Your task to perform on an android device: change the clock style Image 0: 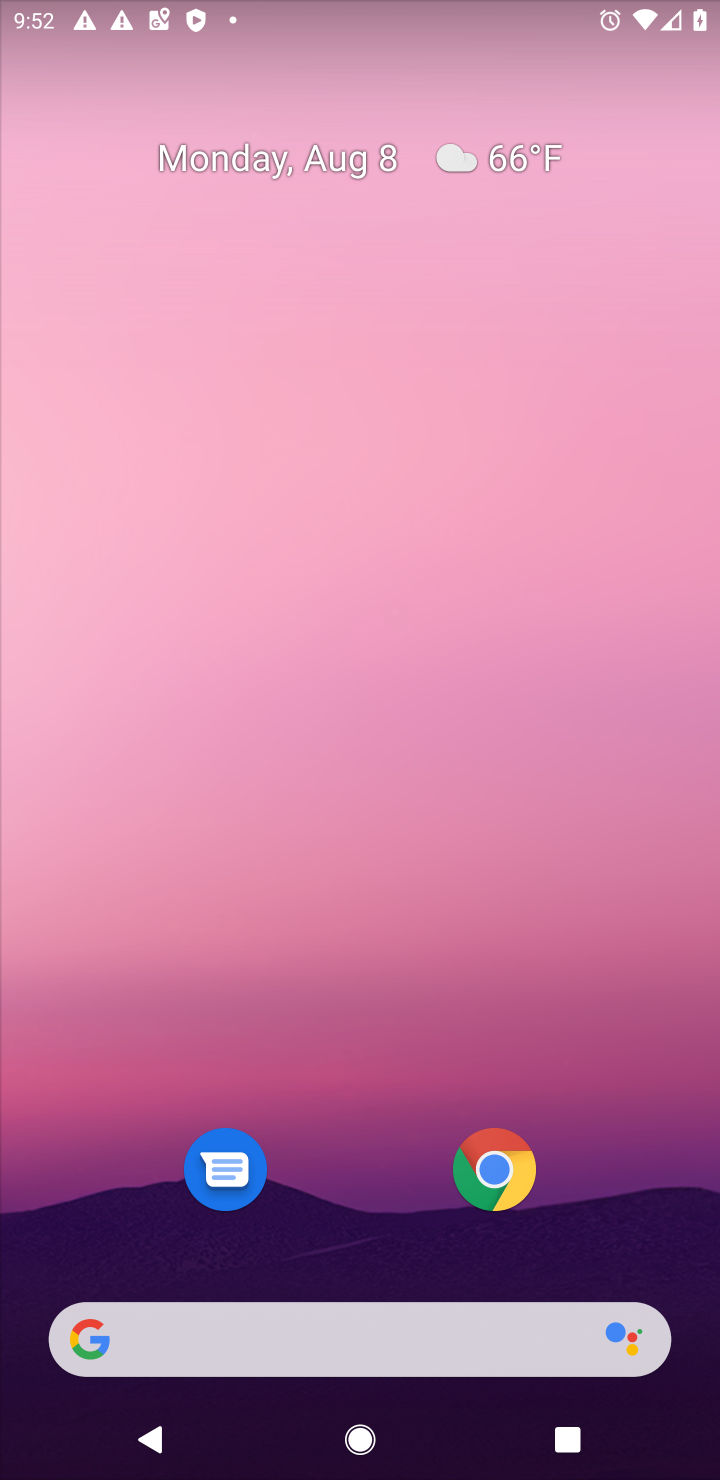
Step 0: drag from (308, 1190) to (395, 53)
Your task to perform on an android device: change the clock style Image 1: 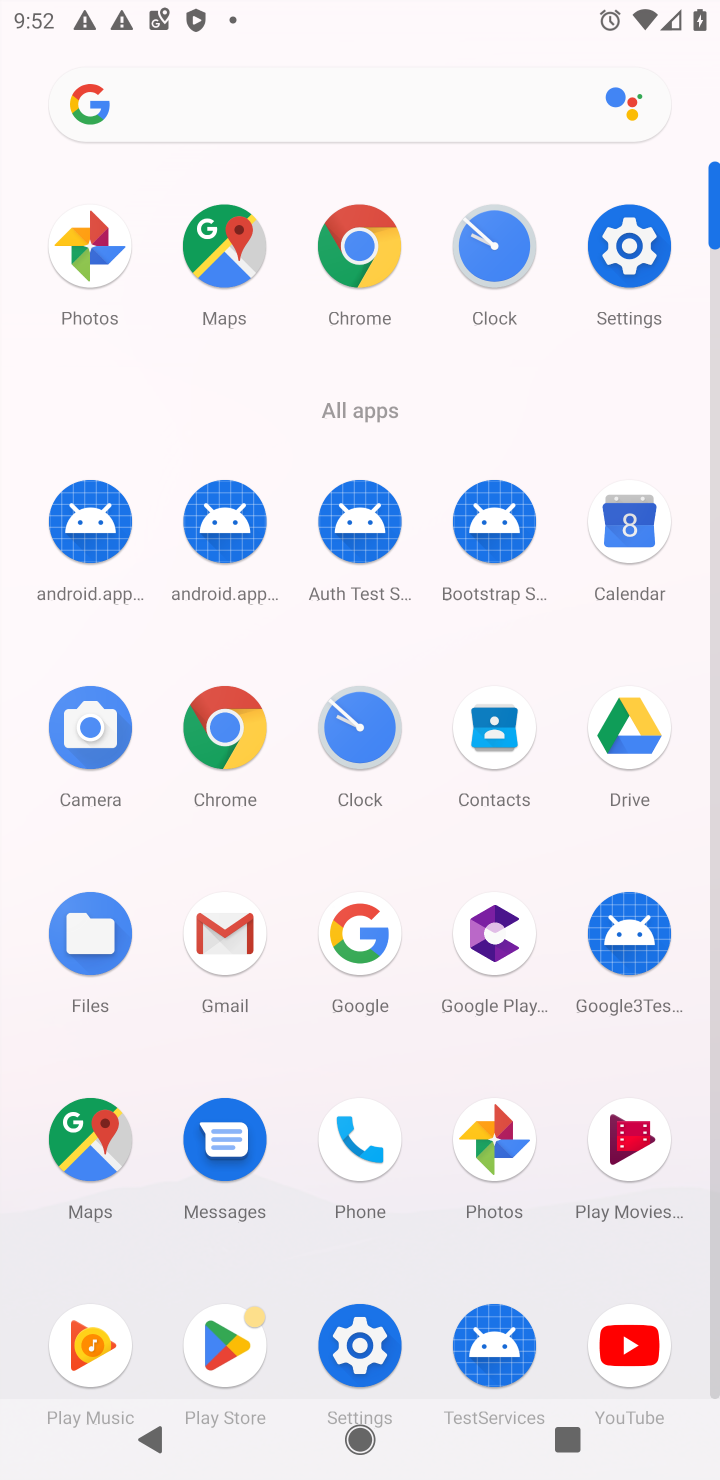
Step 1: click (489, 255)
Your task to perform on an android device: change the clock style Image 2: 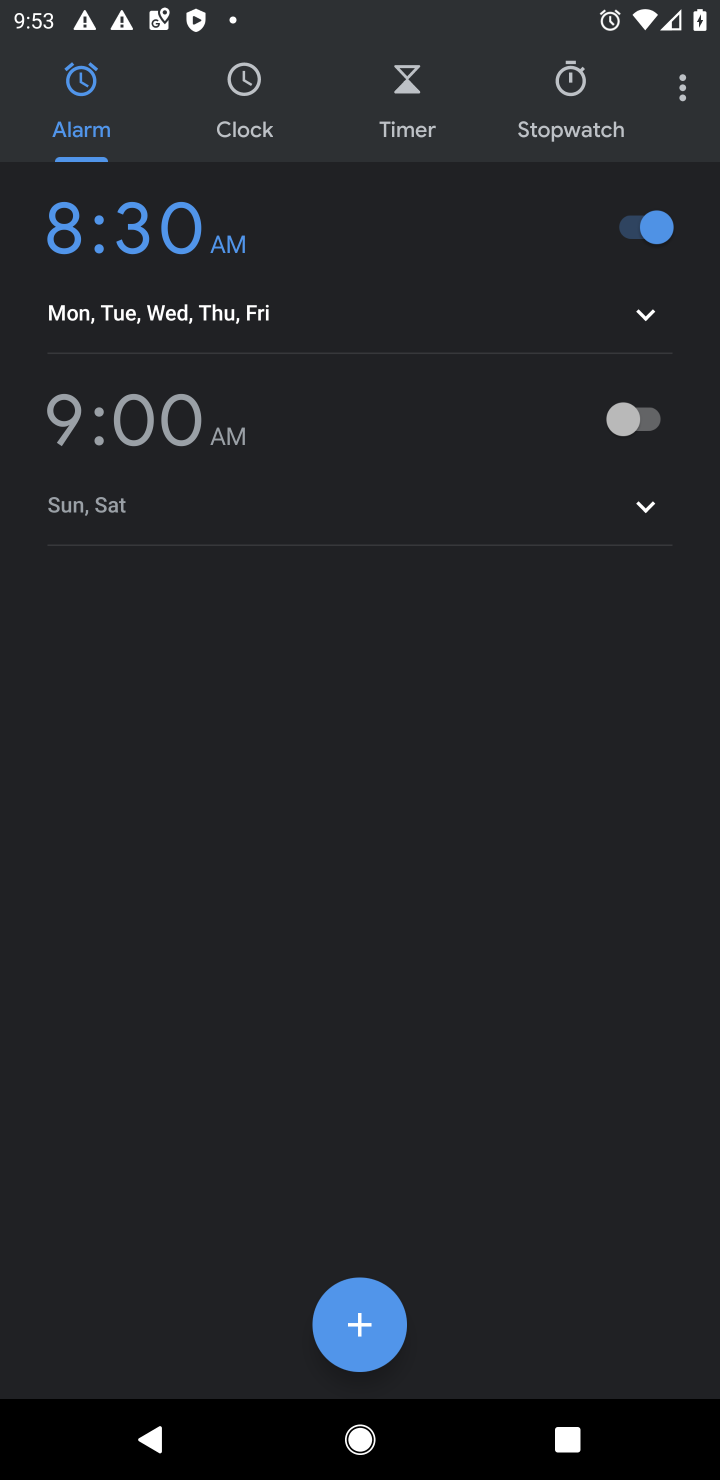
Step 2: click (677, 90)
Your task to perform on an android device: change the clock style Image 3: 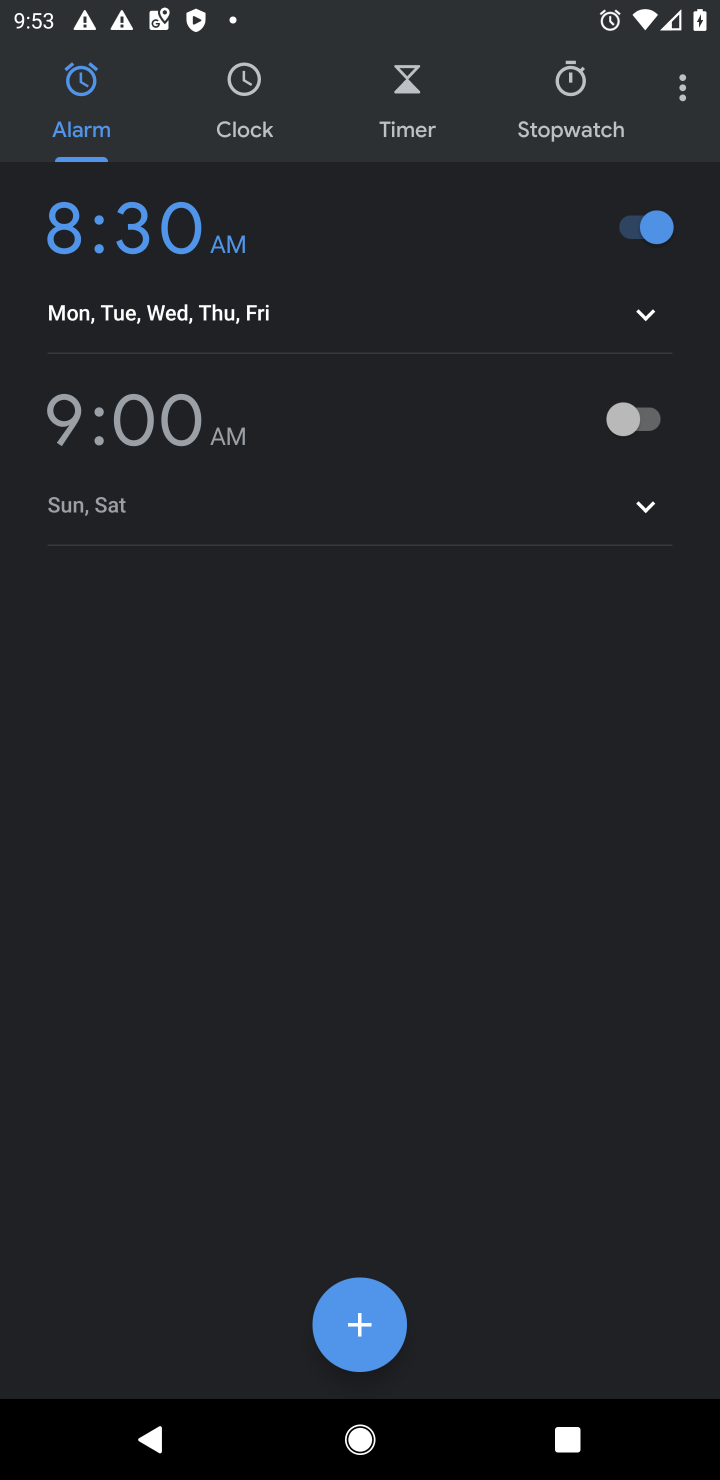
Step 3: click (692, 82)
Your task to perform on an android device: change the clock style Image 4: 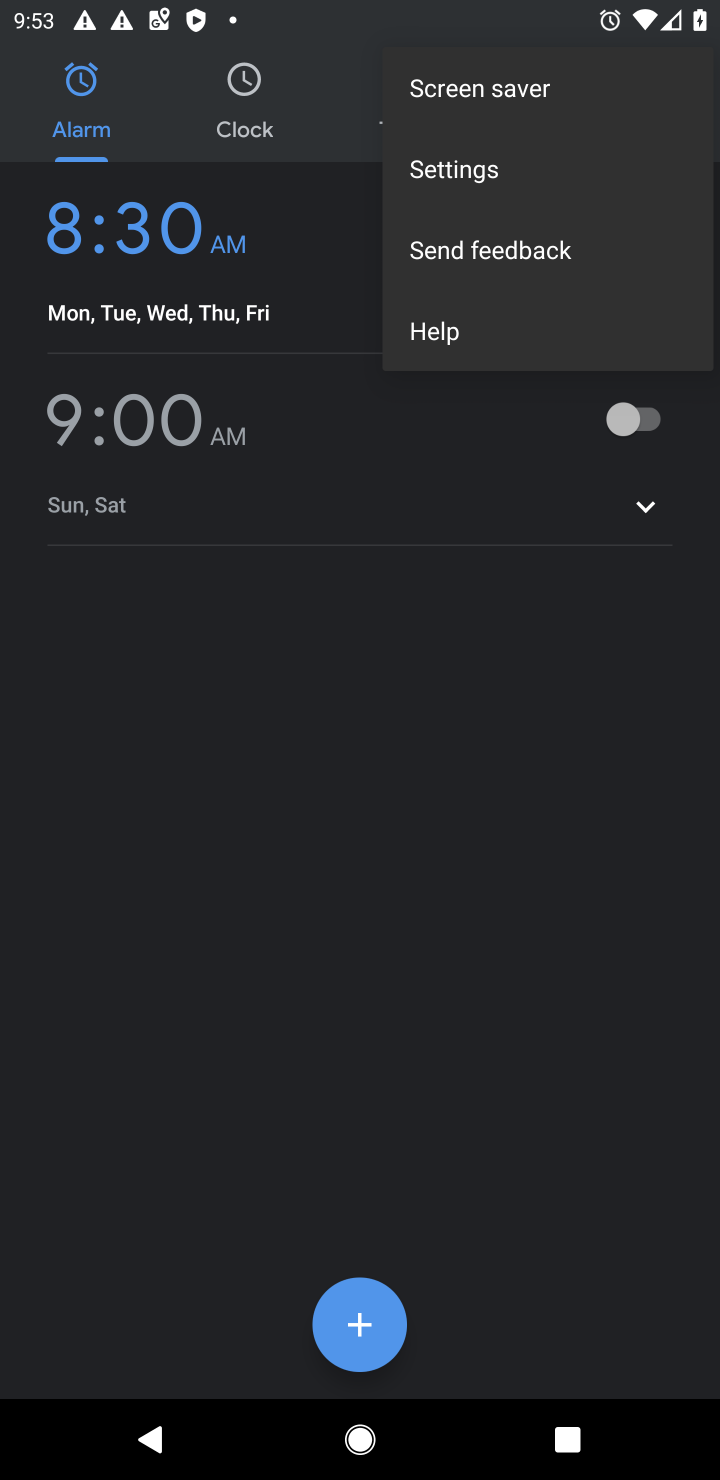
Step 4: click (469, 178)
Your task to perform on an android device: change the clock style Image 5: 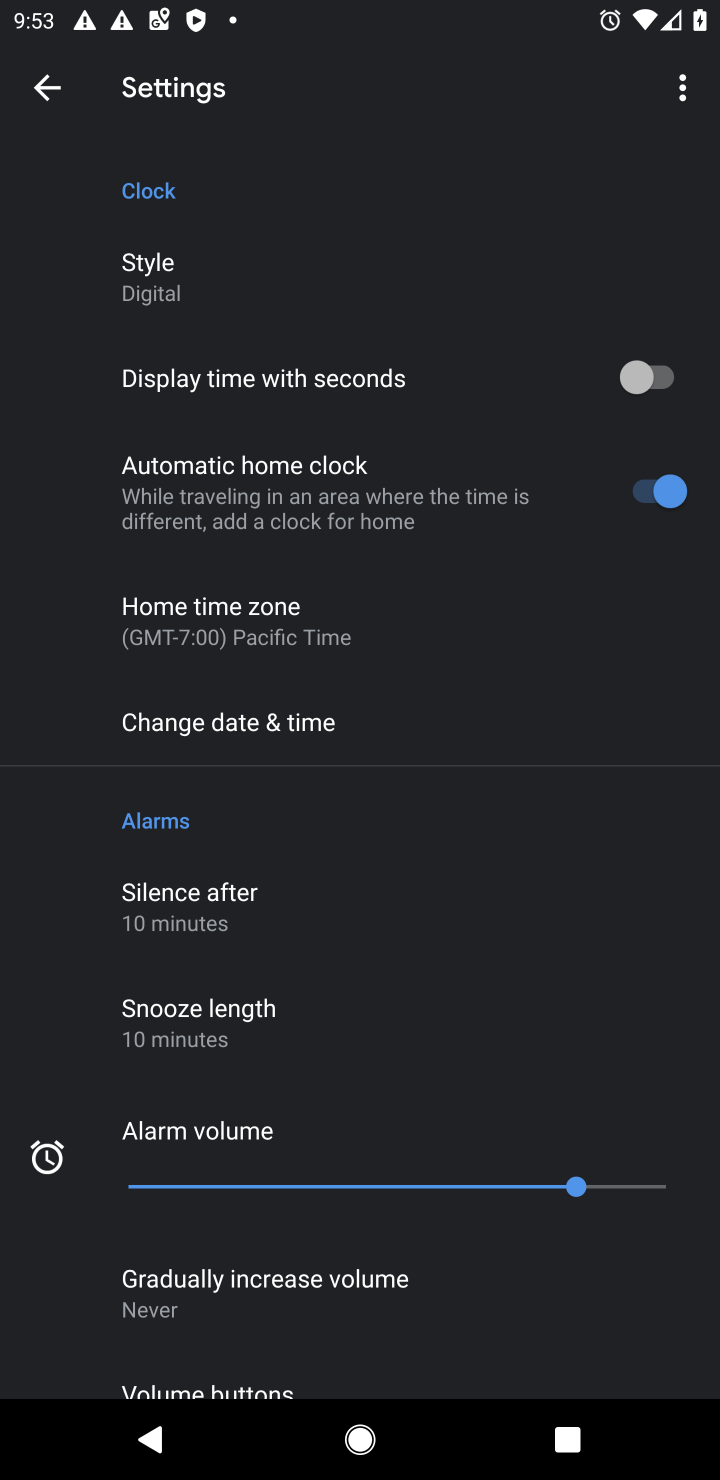
Step 5: click (276, 289)
Your task to perform on an android device: change the clock style Image 6: 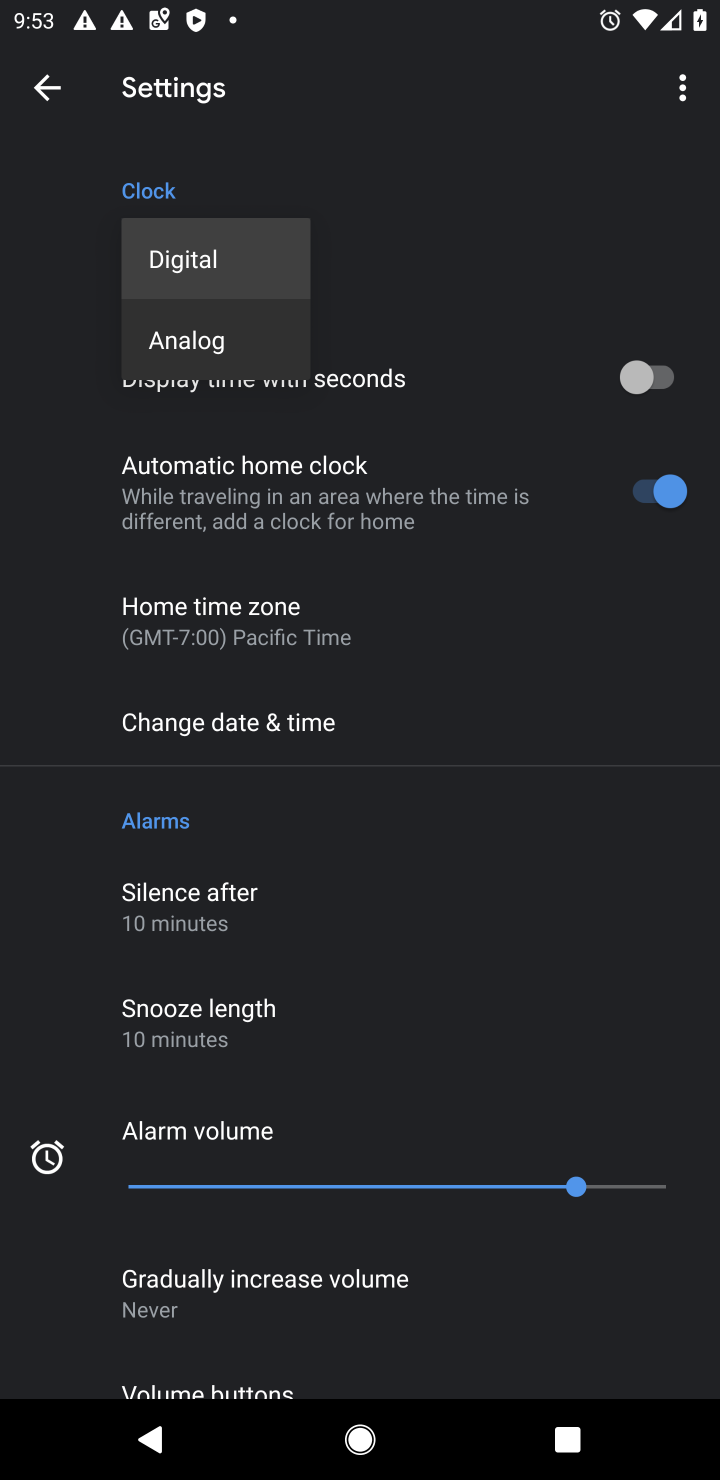
Step 6: click (194, 329)
Your task to perform on an android device: change the clock style Image 7: 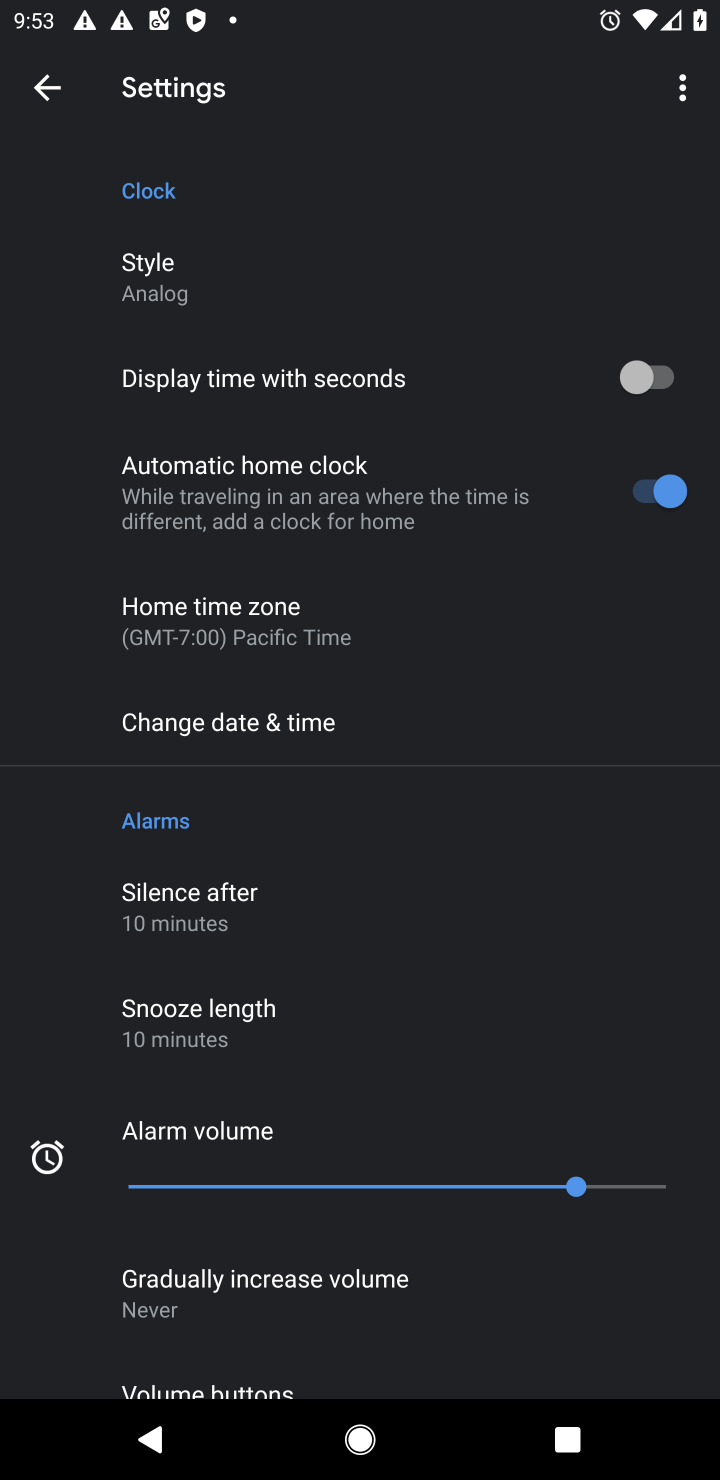
Step 7: task complete